Your task to perform on an android device: toggle show notifications on the lock screen Image 0: 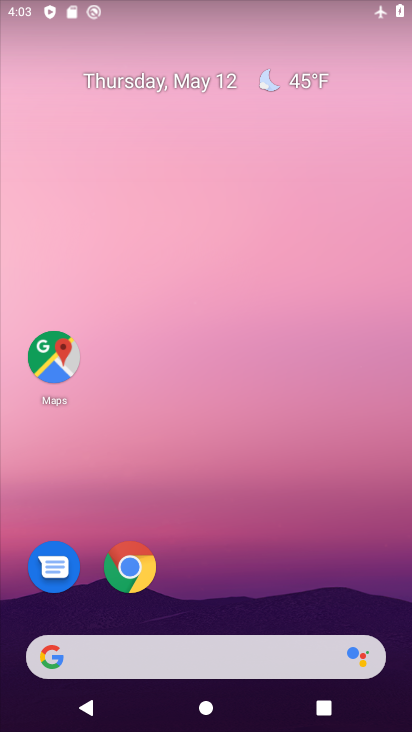
Step 0: drag from (221, 605) to (203, 225)
Your task to perform on an android device: toggle show notifications on the lock screen Image 1: 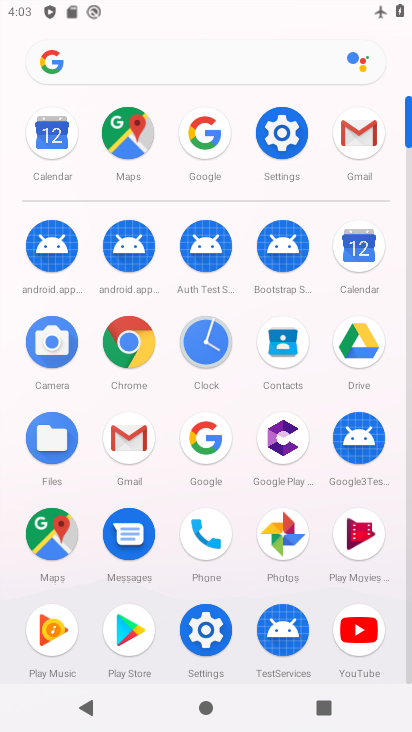
Step 1: click (274, 152)
Your task to perform on an android device: toggle show notifications on the lock screen Image 2: 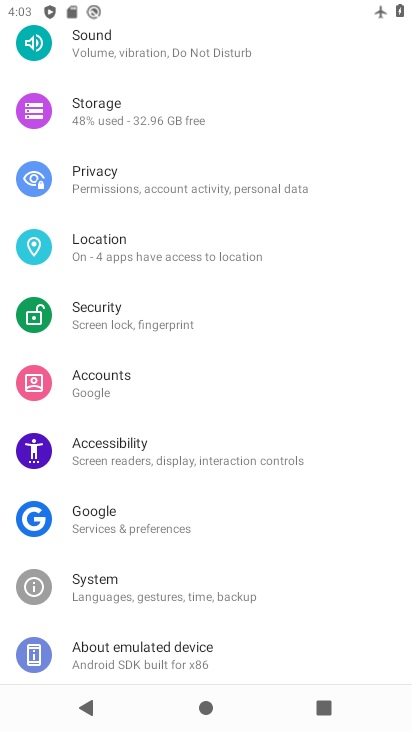
Step 2: drag from (178, 143) to (197, 461)
Your task to perform on an android device: toggle show notifications on the lock screen Image 3: 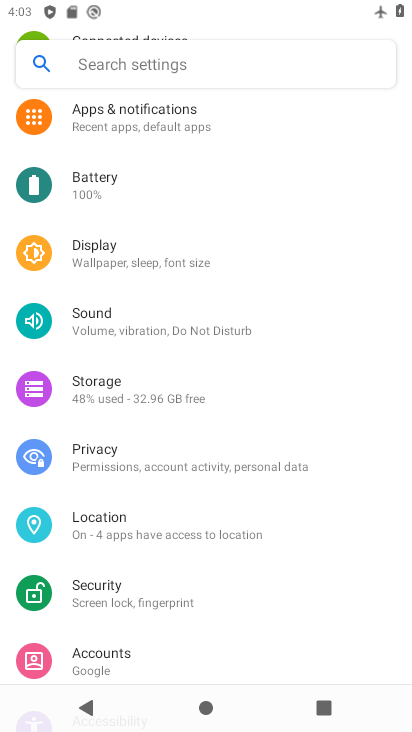
Step 3: click (247, 125)
Your task to perform on an android device: toggle show notifications on the lock screen Image 4: 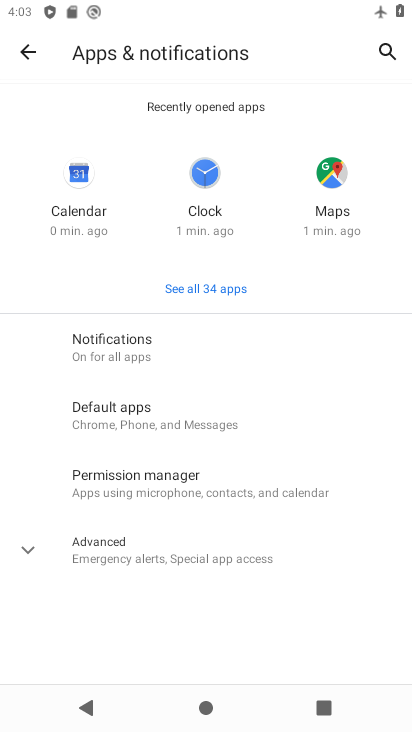
Step 4: click (134, 351)
Your task to perform on an android device: toggle show notifications on the lock screen Image 5: 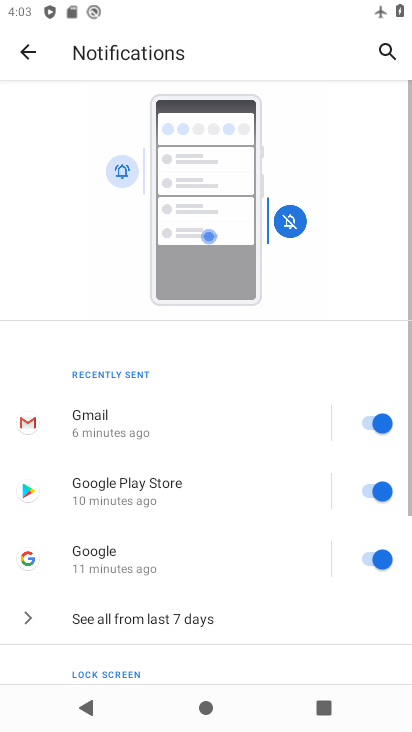
Step 5: drag from (230, 599) to (250, 193)
Your task to perform on an android device: toggle show notifications on the lock screen Image 6: 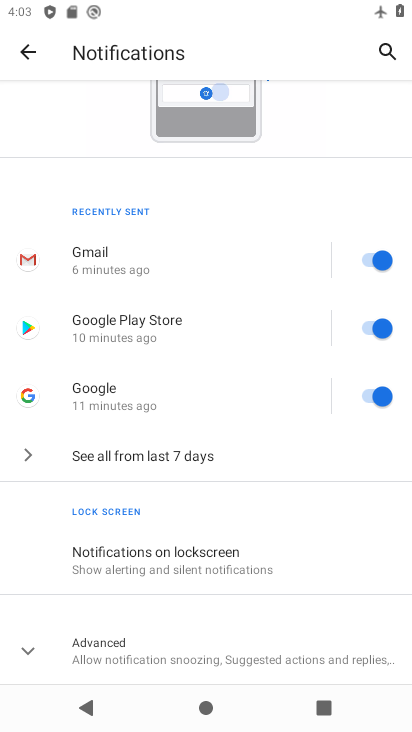
Step 6: click (219, 561)
Your task to perform on an android device: toggle show notifications on the lock screen Image 7: 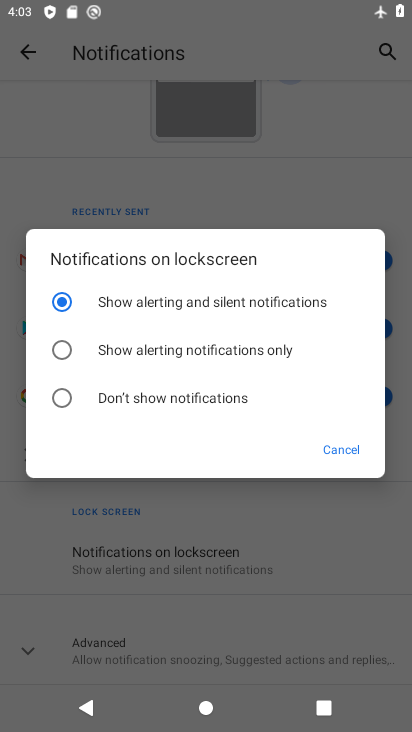
Step 7: click (232, 396)
Your task to perform on an android device: toggle show notifications on the lock screen Image 8: 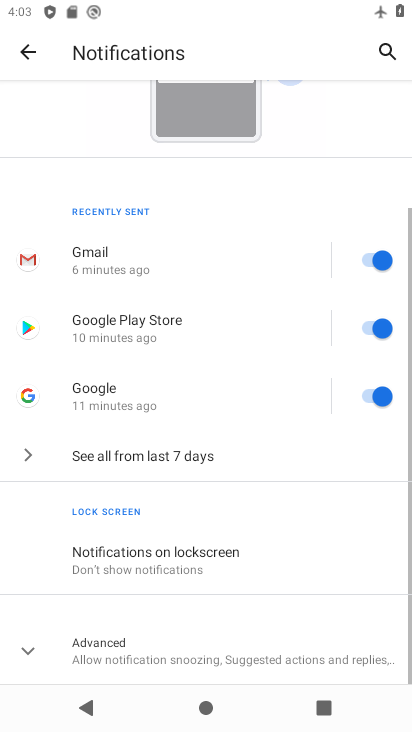
Step 8: task complete